Your task to perform on an android device: Open calendar and show me the second week of next month Image 0: 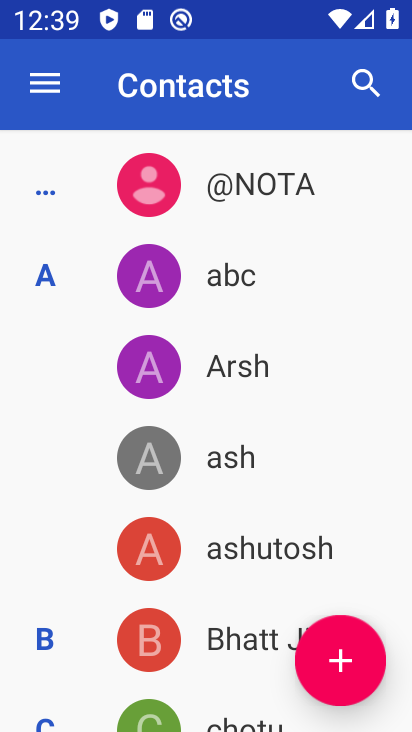
Step 0: press home button
Your task to perform on an android device: Open calendar and show me the second week of next month Image 1: 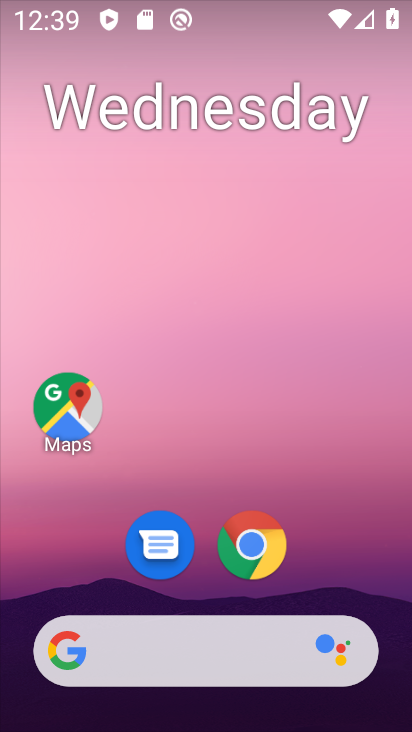
Step 1: drag from (153, 607) to (178, 224)
Your task to perform on an android device: Open calendar and show me the second week of next month Image 2: 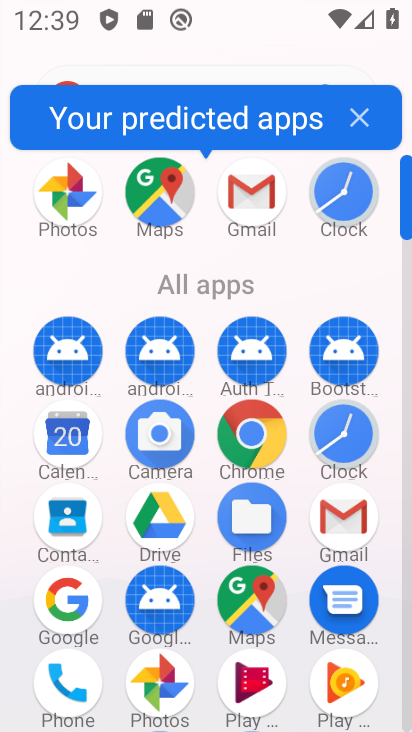
Step 2: click (49, 438)
Your task to perform on an android device: Open calendar and show me the second week of next month Image 3: 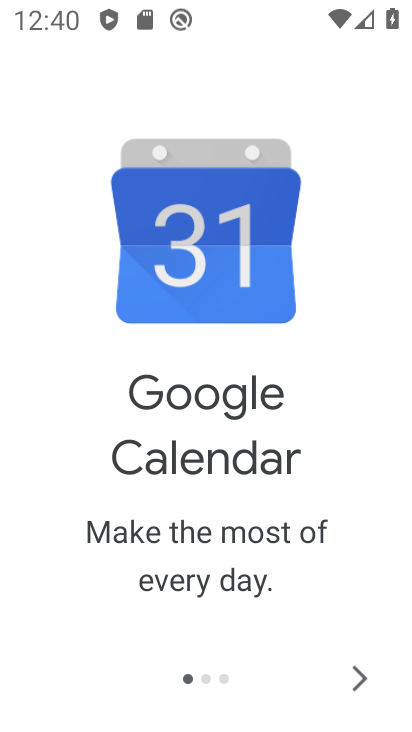
Step 3: click (354, 685)
Your task to perform on an android device: Open calendar and show me the second week of next month Image 4: 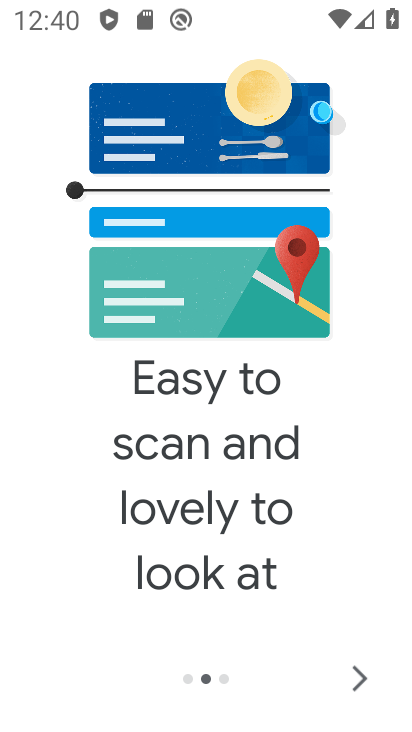
Step 4: click (344, 671)
Your task to perform on an android device: Open calendar and show me the second week of next month Image 5: 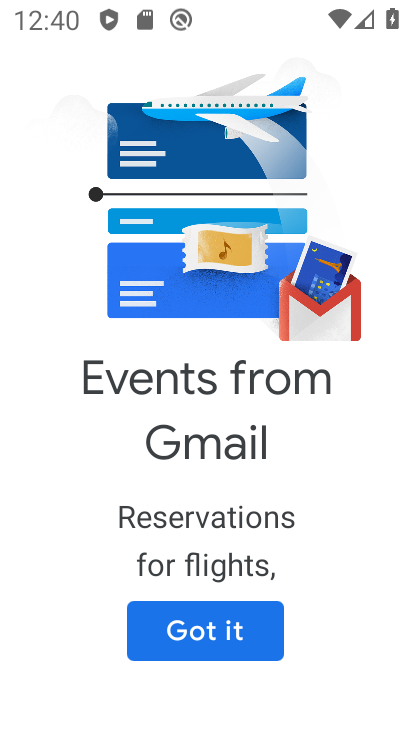
Step 5: click (211, 641)
Your task to perform on an android device: Open calendar and show me the second week of next month Image 6: 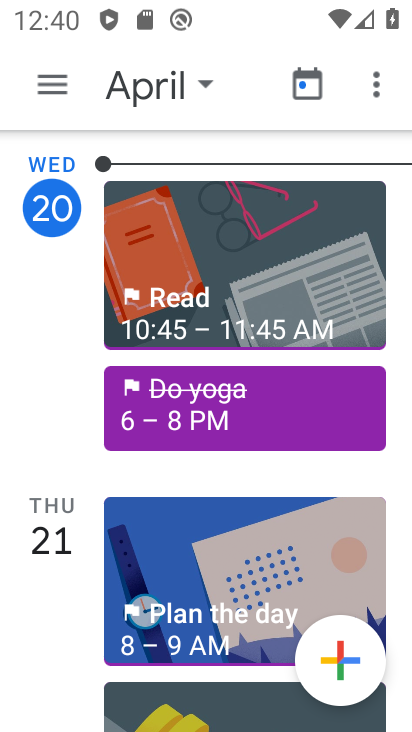
Step 6: click (179, 76)
Your task to perform on an android device: Open calendar and show me the second week of next month Image 7: 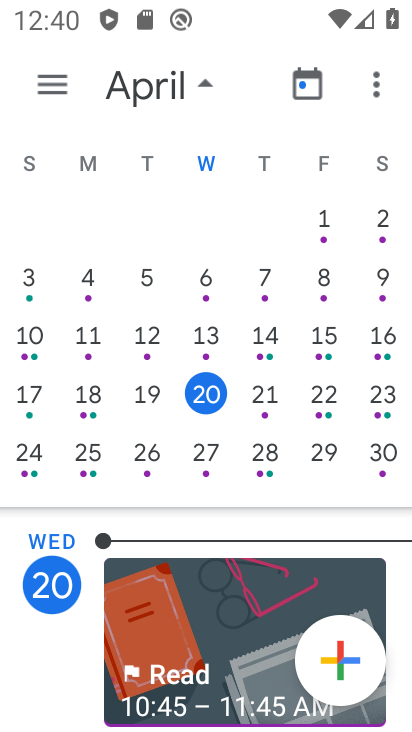
Step 7: drag from (402, 345) to (66, 343)
Your task to perform on an android device: Open calendar and show me the second week of next month Image 8: 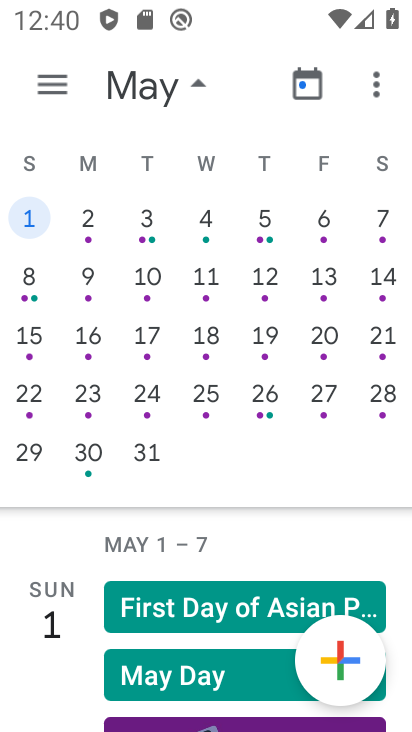
Step 8: click (47, 274)
Your task to perform on an android device: Open calendar and show me the second week of next month Image 9: 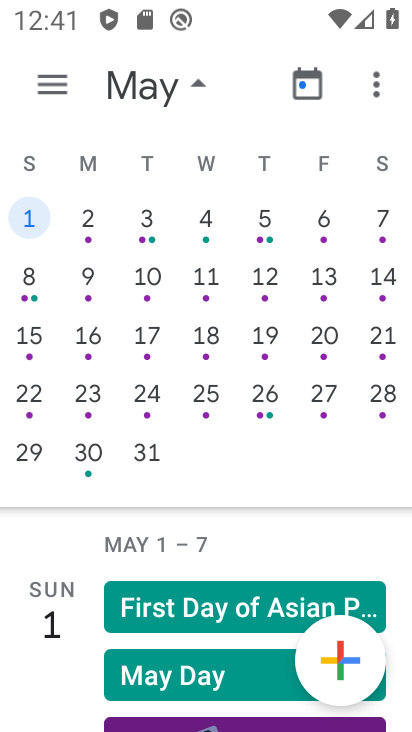
Step 9: click (80, 281)
Your task to perform on an android device: Open calendar and show me the second week of next month Image 10: 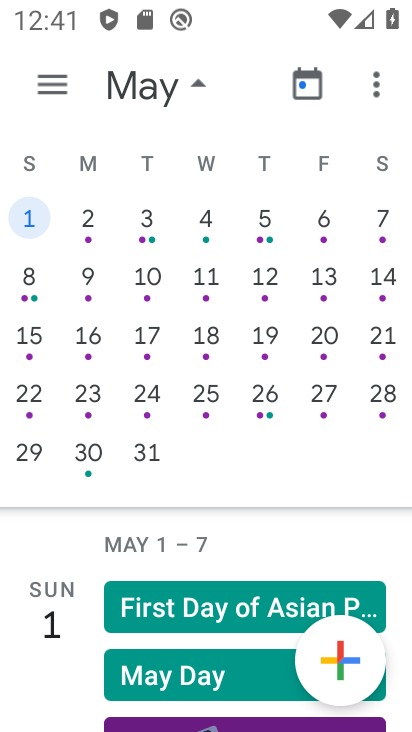
Step 10: click (140, 290)
Your task to perform on an android device: Open calendar and show me the second week of next month Image 11: 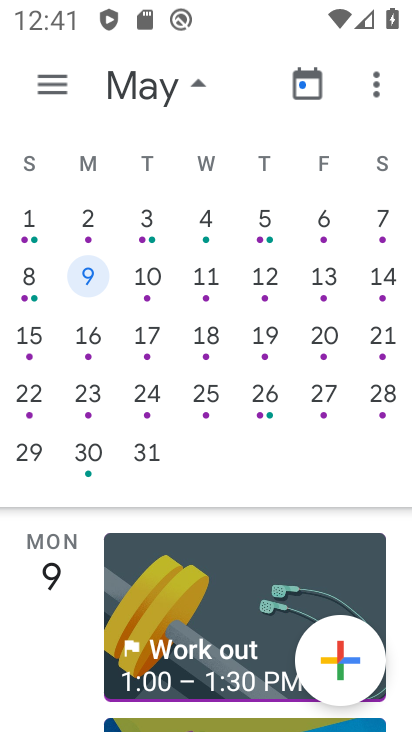
Step 11: click (210, 290)
Your task to perform on an android device: Open calendar and show me the second week of next month Image 12: 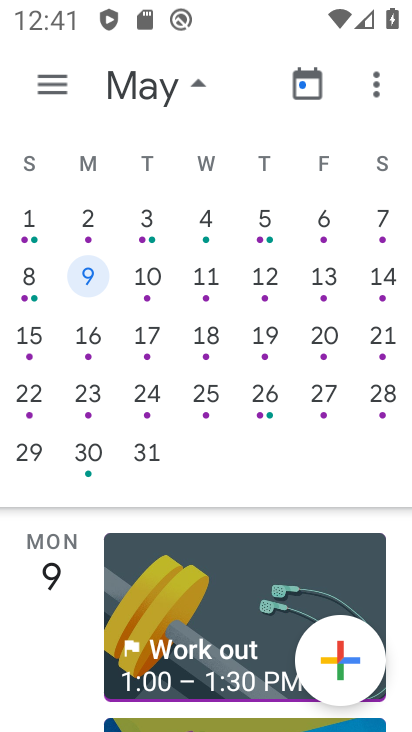
Step 12: click (295, 293)
Your task to perform on an android device: Open calendar and show me the second week of next month Image 13: 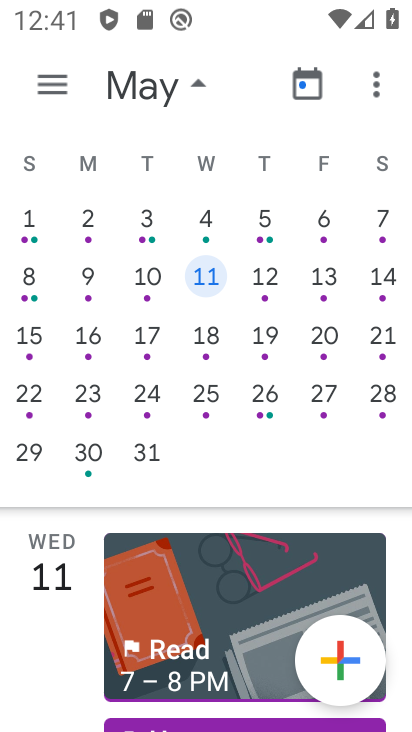
Step 13: click (332, 290)
Your task to perform on an android device: Open calendar and show me the second week of next month Image 14: 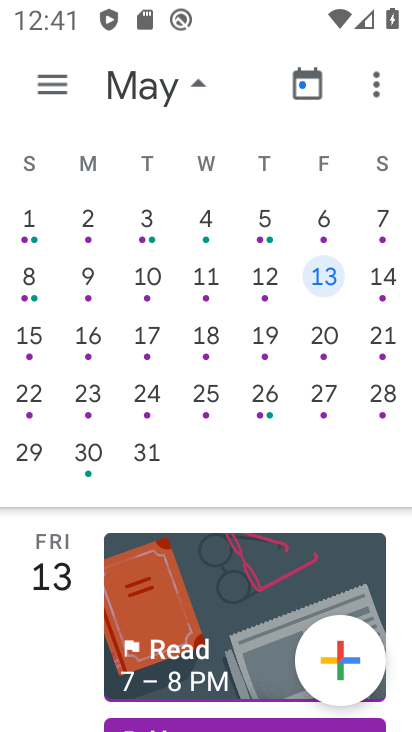
Step 14: click (372, 286)
Your task to perform on an android device: Open calendar and show me the second week of next month Image 15: 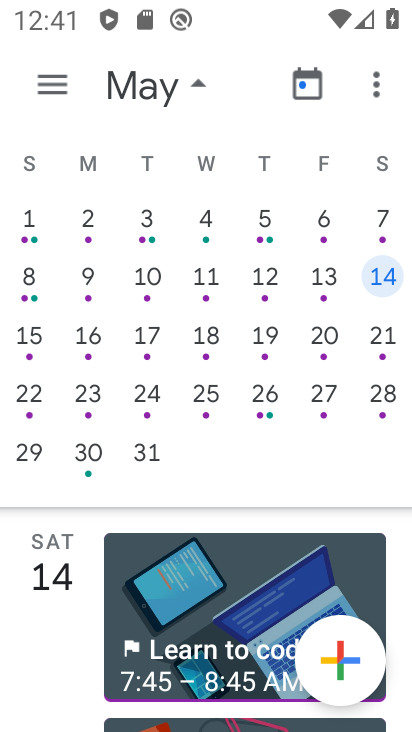
Step 15: click (63, 87)
Your task to perform on an android device: Open calendar and show me the second week of next month Image 16: 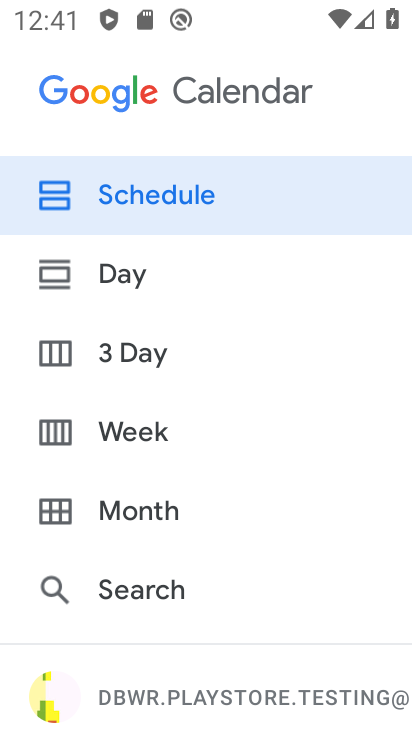
Step 16: click (150, 422)
Your task to perform on an android device: Open calendar and show me the second week of next month Image 17: 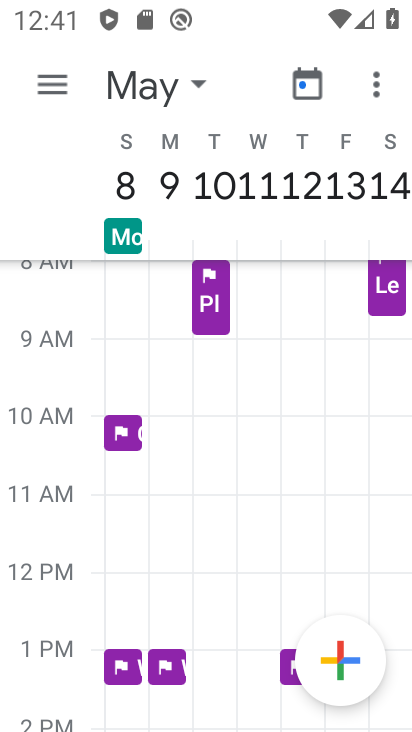
Step 17: task complete